Your task to perform on an android device: Search for vegetarian restaurants on Maps Image 0: 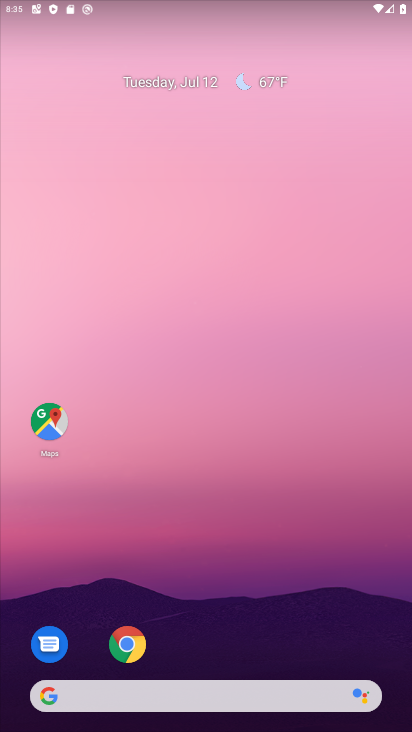
Step 0: drag from (188, 453) to (236, 29)
Your task to perform on an android device: Search for vegetarian restaurants on Maps Image 1: 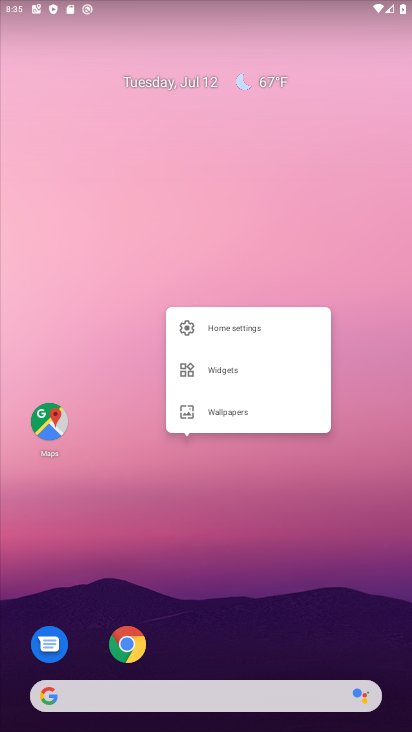
Step 1: press home button
Your task to perform on an android device: Search for vegetarian restaurants on Maps Image 2: 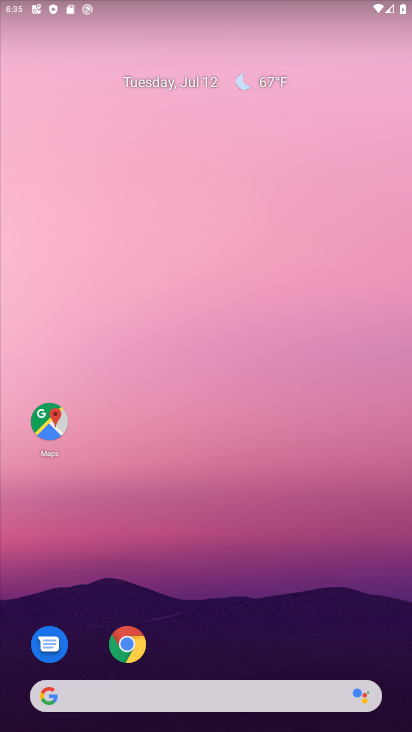
Step 2: drag from (286, 553) to (372, 68)
Your task to perform on an android device: Search for vegetarian restaurants on Maps Image 3: 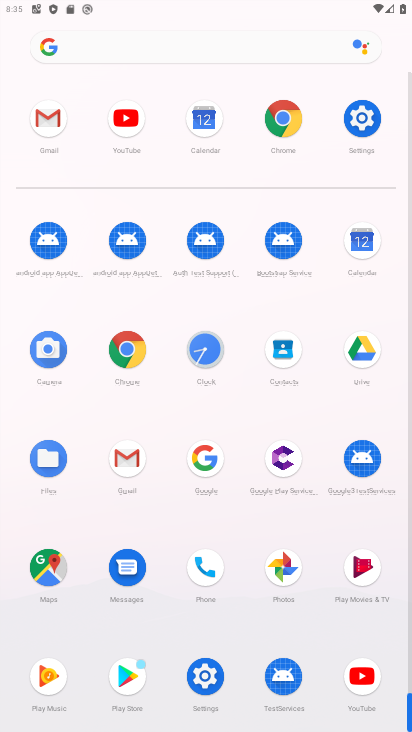
Step 3: click (42, 560)
Your task to perform on an android device: Search for vegetarian restaurants on Maps Image 4: 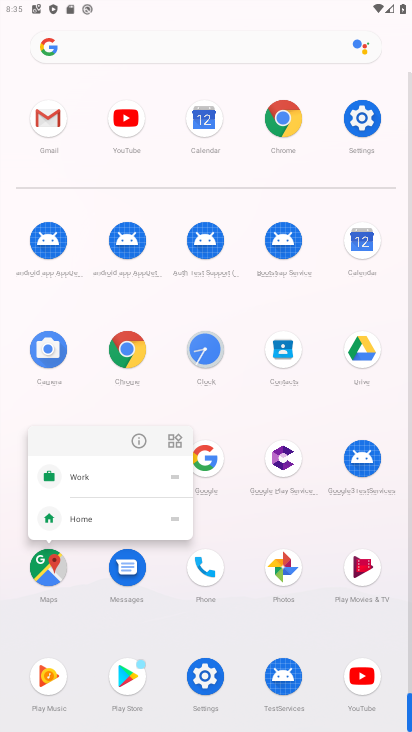
Step 4: click (137, 438)
Your task to perform on an android device: Search for vegetarian restaurants on Maps Image 5: 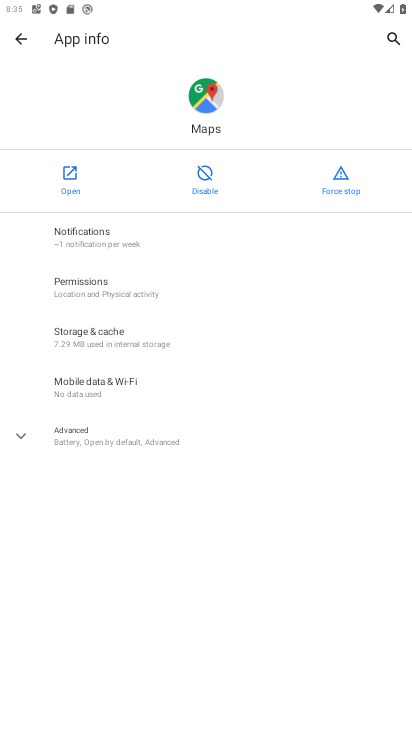
Step 5: click (76, 176)
Your task to perform on an android device: Search for vegetarian restaurants on Maps Image 6: 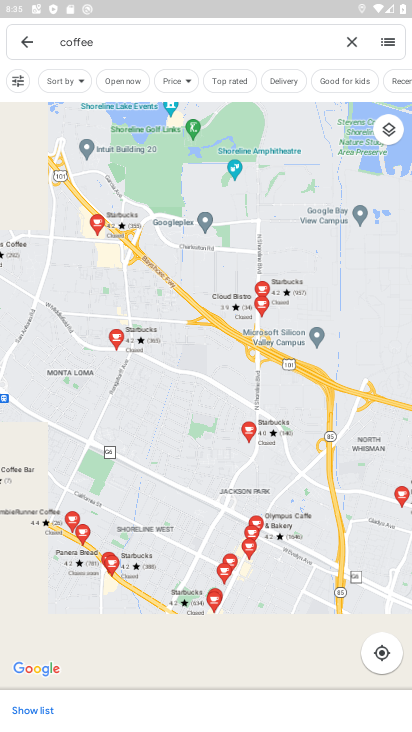
Step 6: click (25, 39)
Your task to perform on an android device: Search for vegetarian restaurants on Maps Image 7: 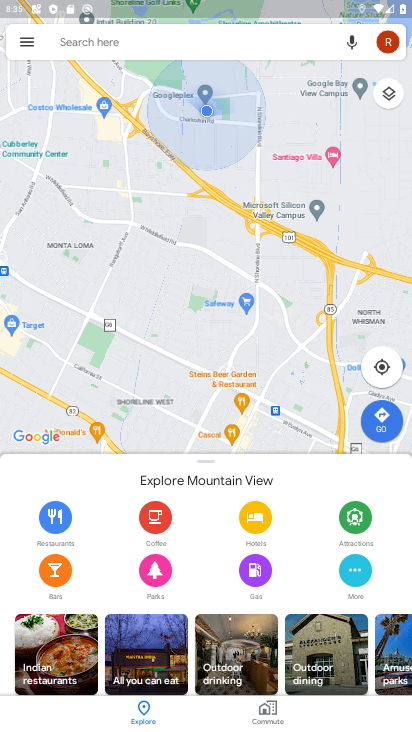
Step 7: click (22, 40)
Your task to perform on an android device: Search for vegetarian restaurants on Maps Image 8: 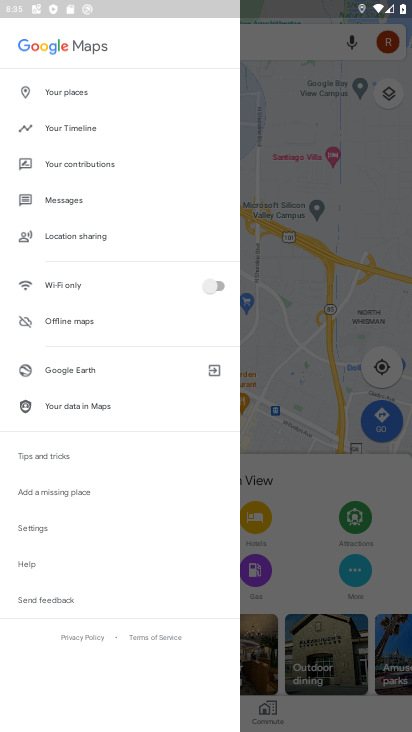
Step 8: drag from (96, 567) to (121, 137)
Your task to perform on an android device: Search for vegetarian restaurants on Maps Image 9: 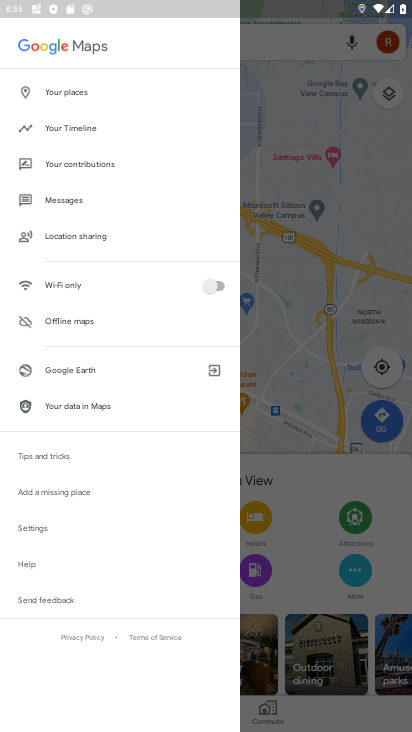
Step 9: click (269, 39)
Your task to perform on an android device: Search for vegetarian restaurants on Maps Image 10: 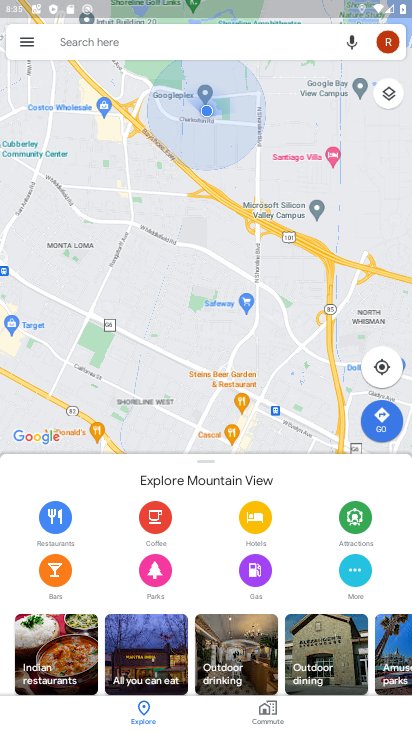
Step 10: click (182, 38)
Your task to perform on an android device: Search for vegetarian restaurants on Maps Image 11: 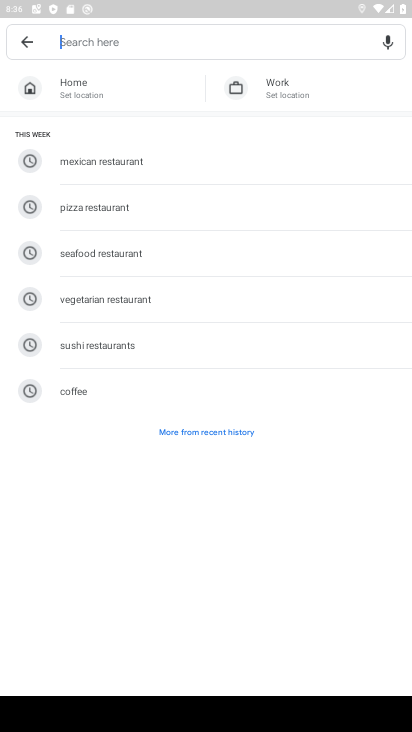
Step 11: click (92, 303)
Your task to perform on an android device: Search for vegetarian restaurants on Maps Image 12: 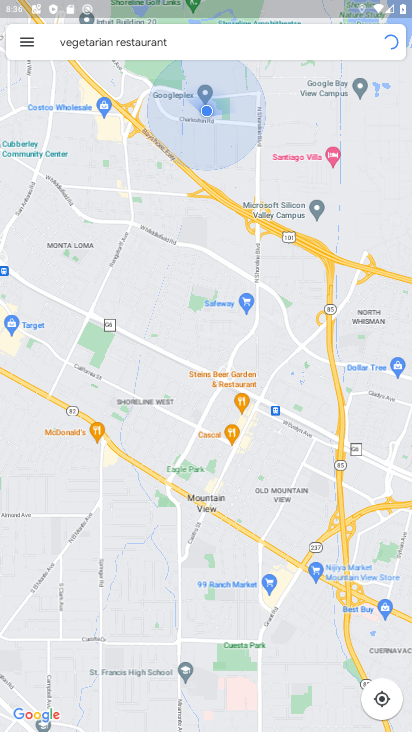
Step 12: task complete